Your task to perform on an android device: Check the news Image 0: 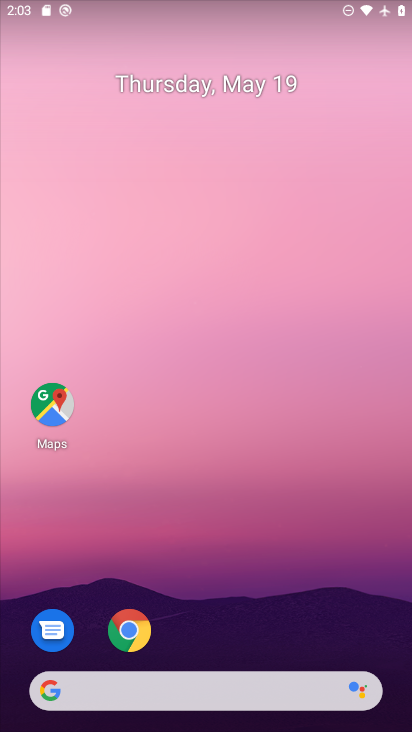
Step 0: click (200, 681)
Your task to perform on an android device: Check the news Image 1: 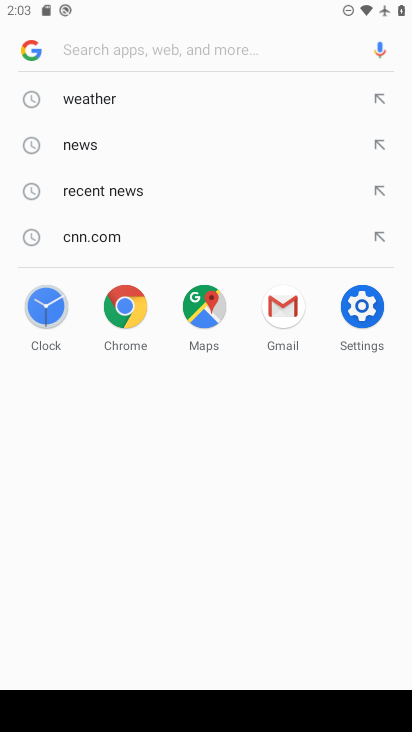
Step 1: click (93, 128)
Your task to perform on an android device: Check the news Image 2: 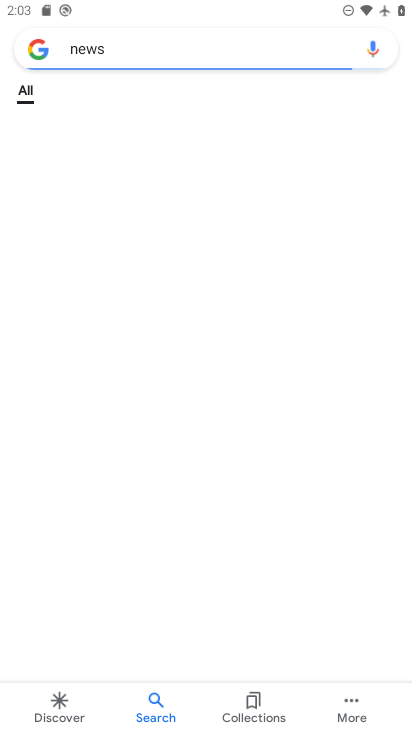
Step 2: task complete